Your task to perform on an android device: Go to privacy settings Image 0: 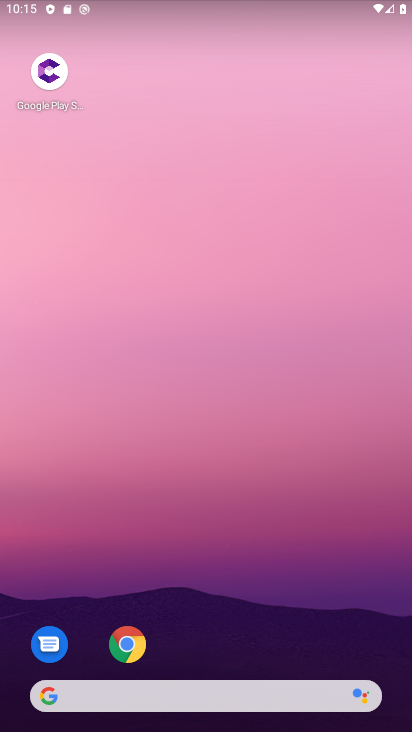
Step 0: drag from (187, 645) to (312, 91)
Your task to perform on an android device: Go to privacy settings Image 1: 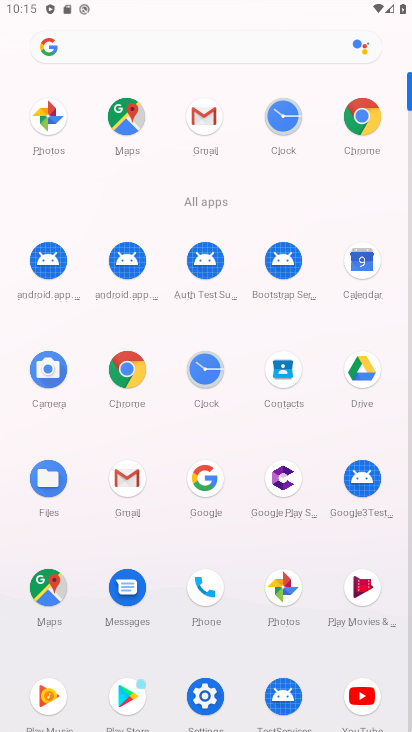
Step 1: click (205, 706)
Your task to perform on an android device: Go to privacy settings Image 2: 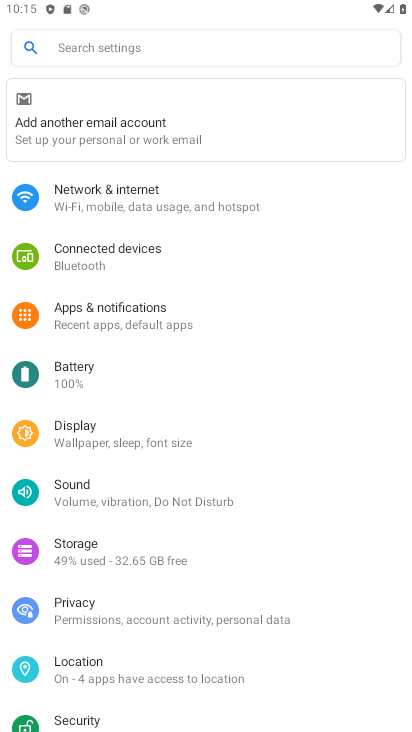
Step 2: click (173, 623)
Your task to perform on an android device: Go to privacy settings Image 3: 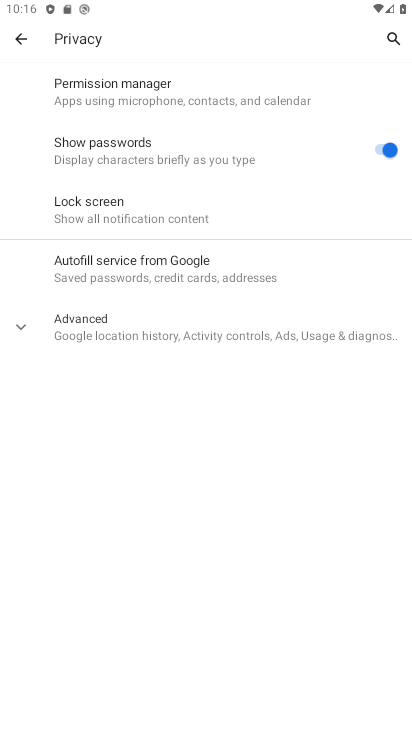
Step 3: task complete